Your task to perform on an android device: see tabs open on other devices in the chrome app Image 0: 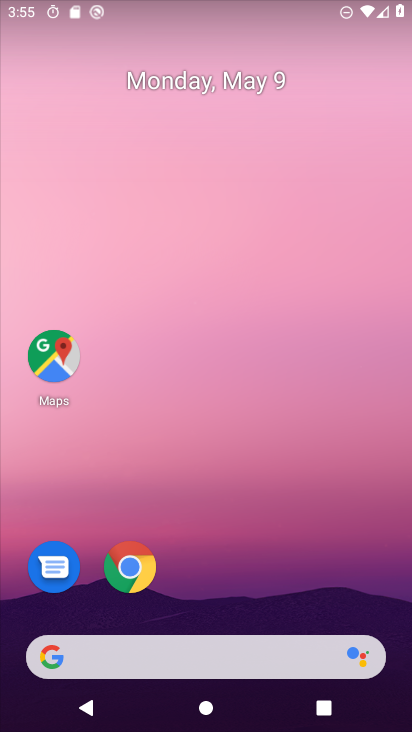
Step 0: click (141, 572)
Your task to perform on an android device: see tabs open on other devices in the chrome app Image 1: 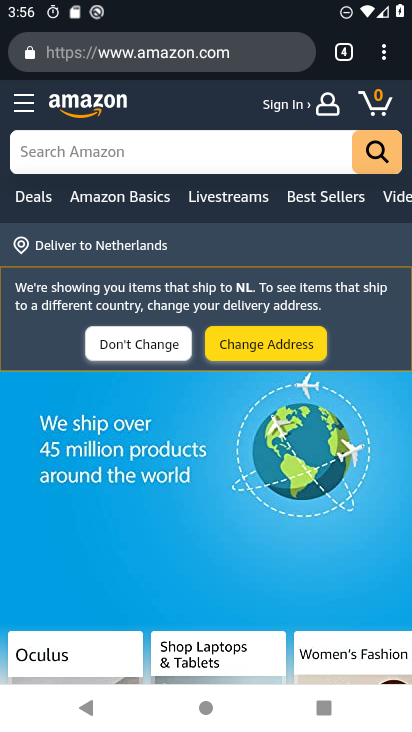
Step 1: click (390, 53)
Your task to perform on an android device: see tabs open on other devices in the chrome app Image 2: 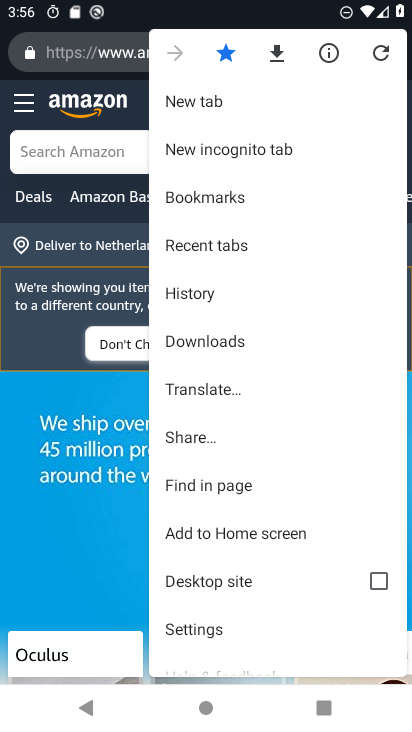
Step 2: click (221, 247)
Your task to perform on an android device: see tabs open on other devices in the chrome app Image 3: 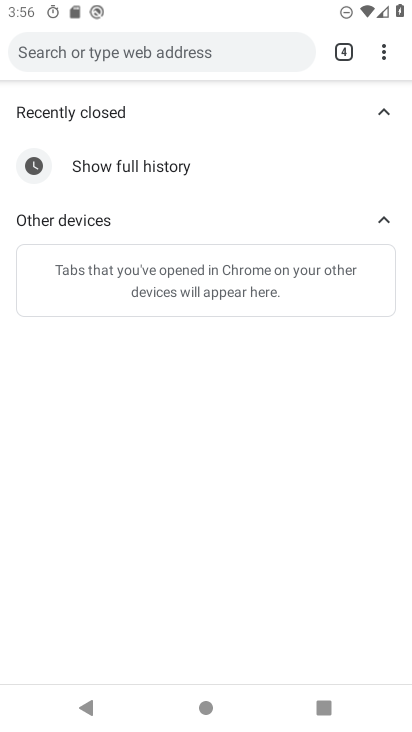
Step 3: task complete